Your task to perform on an android device: check google app version Image 0: 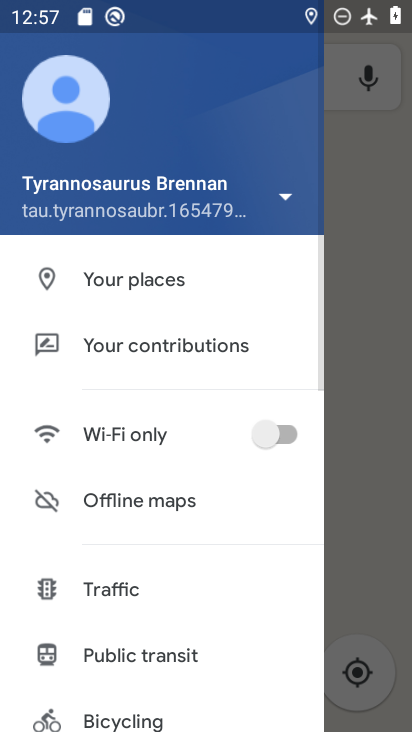
Step 0: press home button
Your task to perform on an android device: check google app version Image 1: 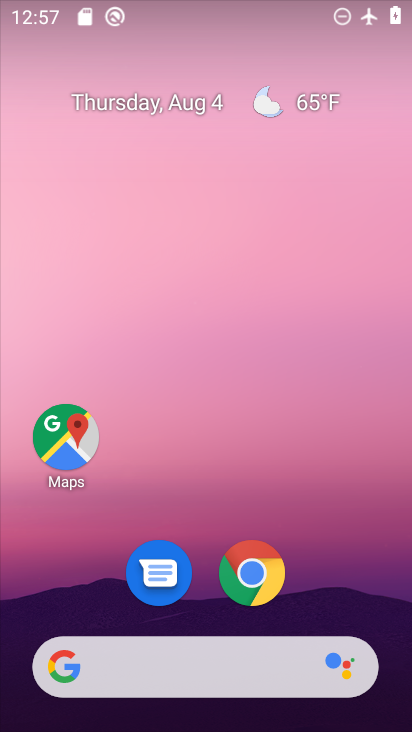
Step 1: drag from (328, 573) to (318, 82)
Your task to perform on an android device: check google app version Image 2: 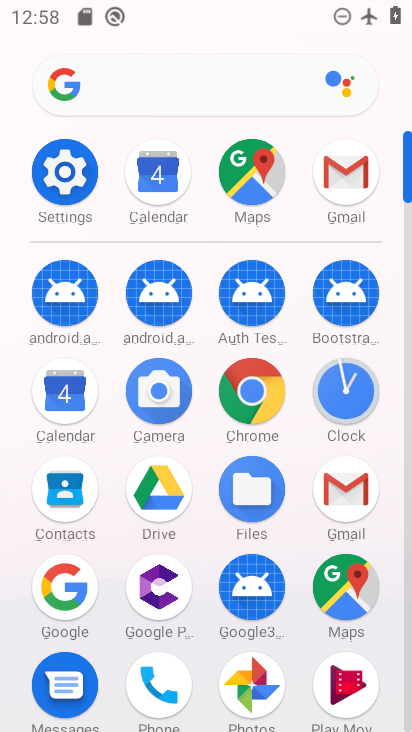
Step 2: click (60, 584)
Your task to perform on an android device: check google app version Image 3: 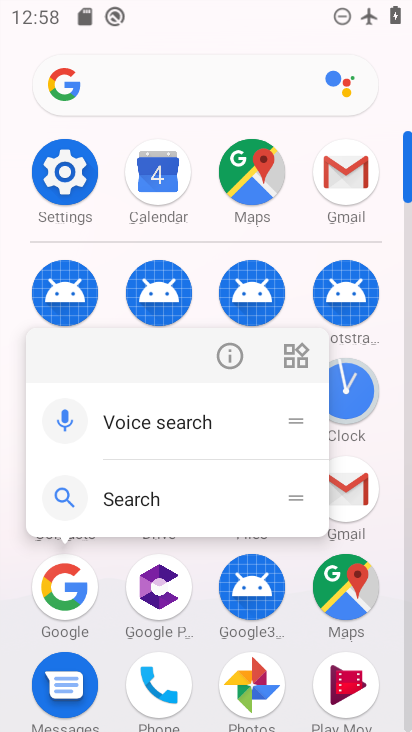
Step 3: click (243, 358)
Your task to perform on an android device: check google app version Image 4: 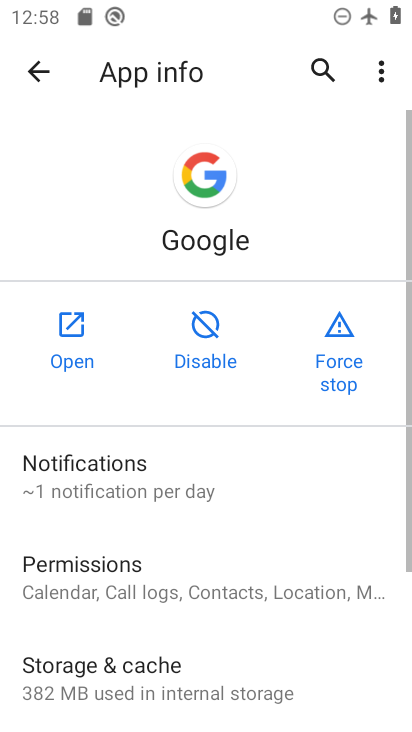
Step 4: drag from (288, 591) to (330, 122)
Your task to perform on an android device: check google app version Image 5: 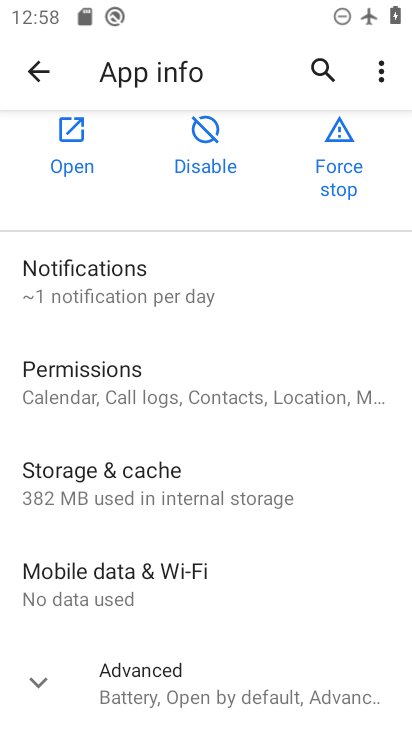
Step 5: click (206, 687)
Your task to perform on an android device: check google app version Image 6: 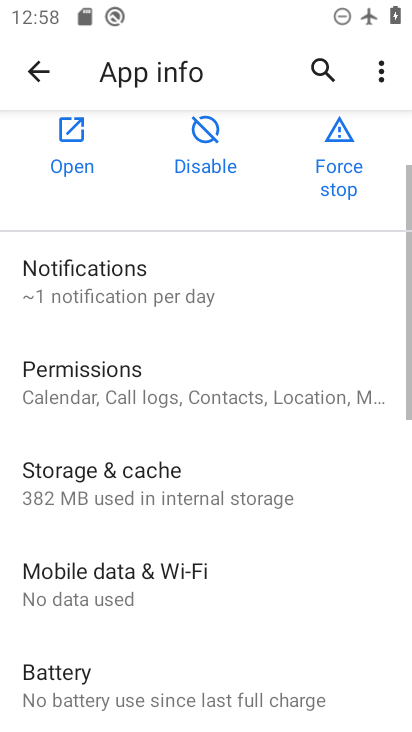
Step 6: drag from (331, 666) to (338, 185)
Your task to perform on an android device: check google app version Image 7: 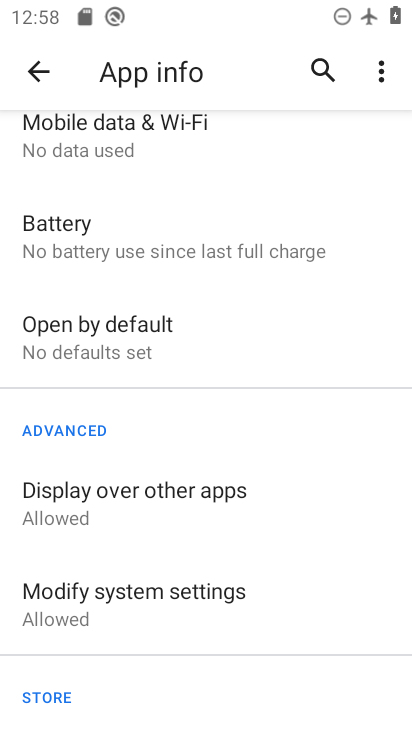
Step 7: drag from (190, 666) to (293, 307)
Your task to perform on an android device: check google app version Image 8: 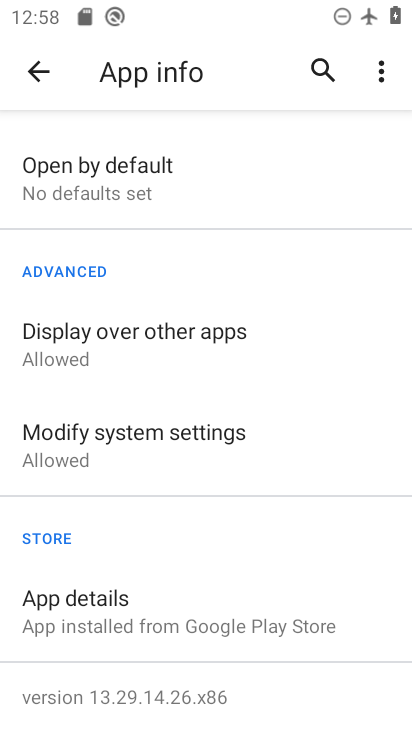
Step 8: click (206, 688)
Your task to perform on an android device: check google app version Image 9: 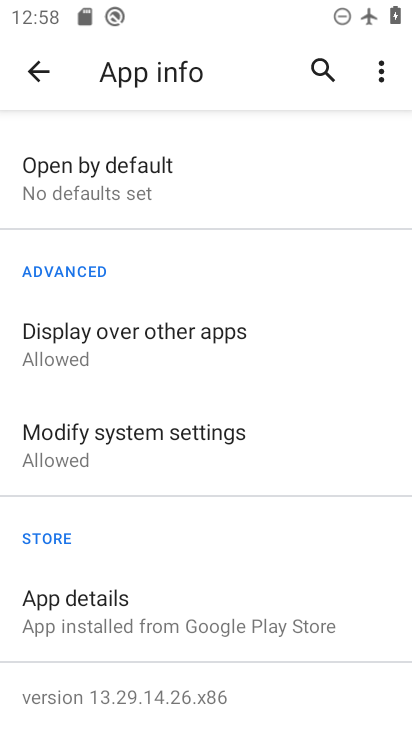
Step 9: task complete